Your task to perform on an android device: turn on bluetooth scan Image 0: 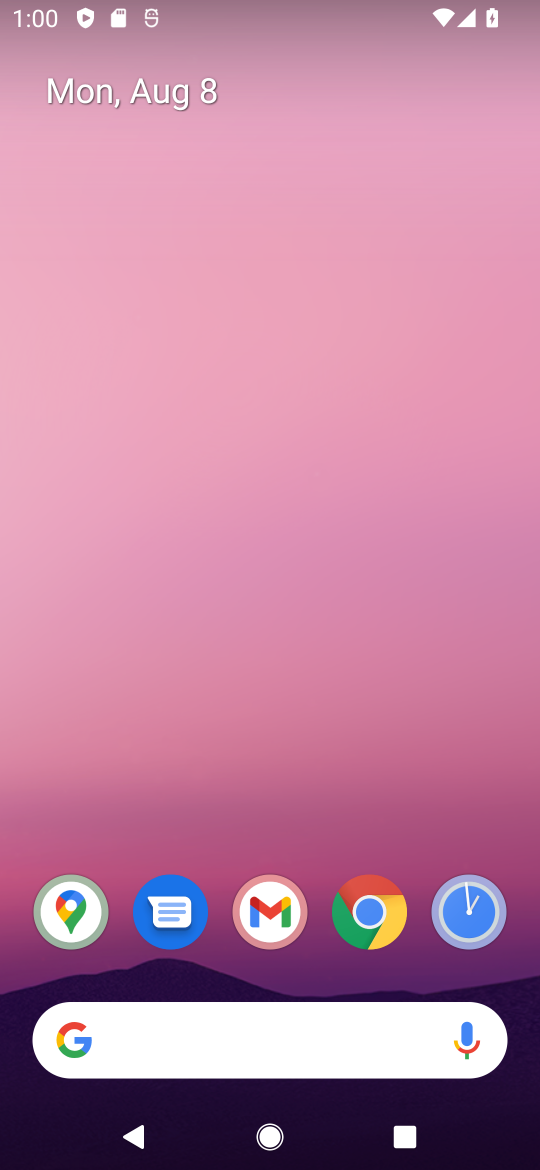
Step 0: drag from (198, 952) to (400, 0)
Your task to perform on an android device: turn on bluetooth scan Image 1: 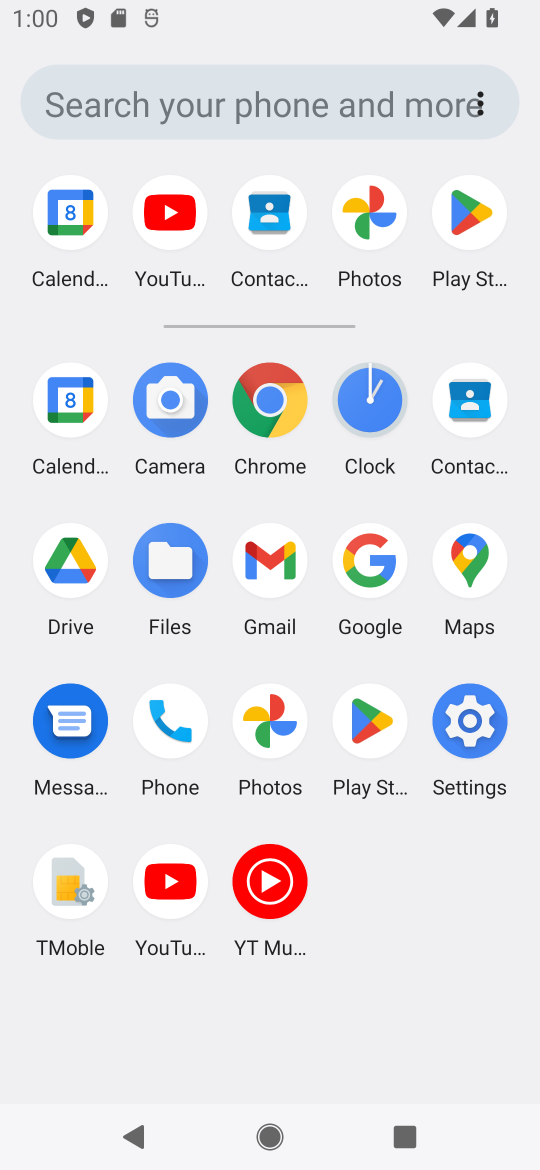
Step 1: click (476, 738)
Your task to perform on an android device: turn on bluetooth scan Image 2: 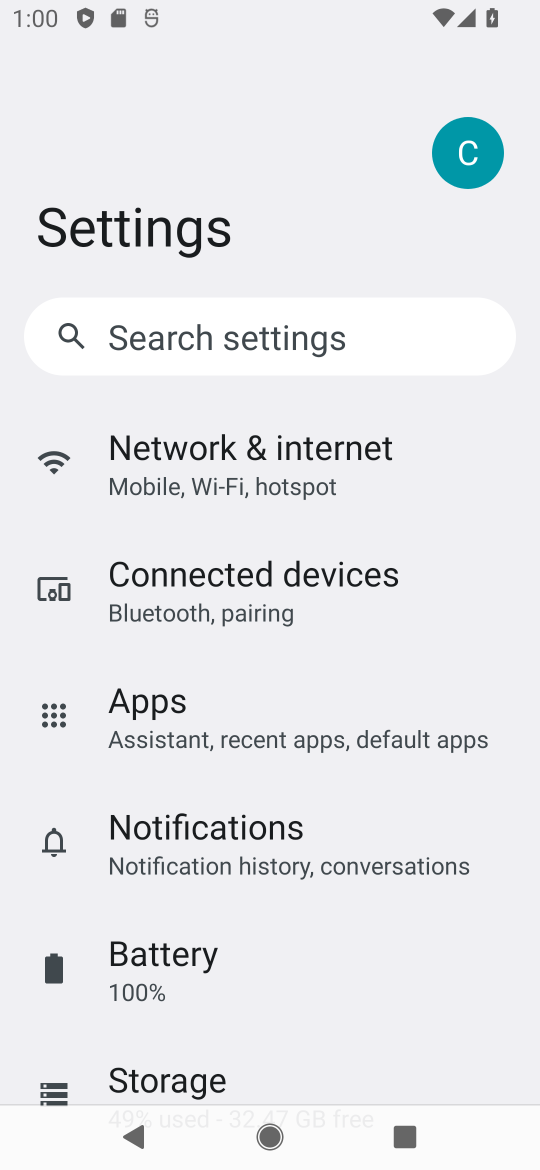
Step 2: click (193, 586)
Your task to perform on an android device: turn on bluetooth scan Image 3: 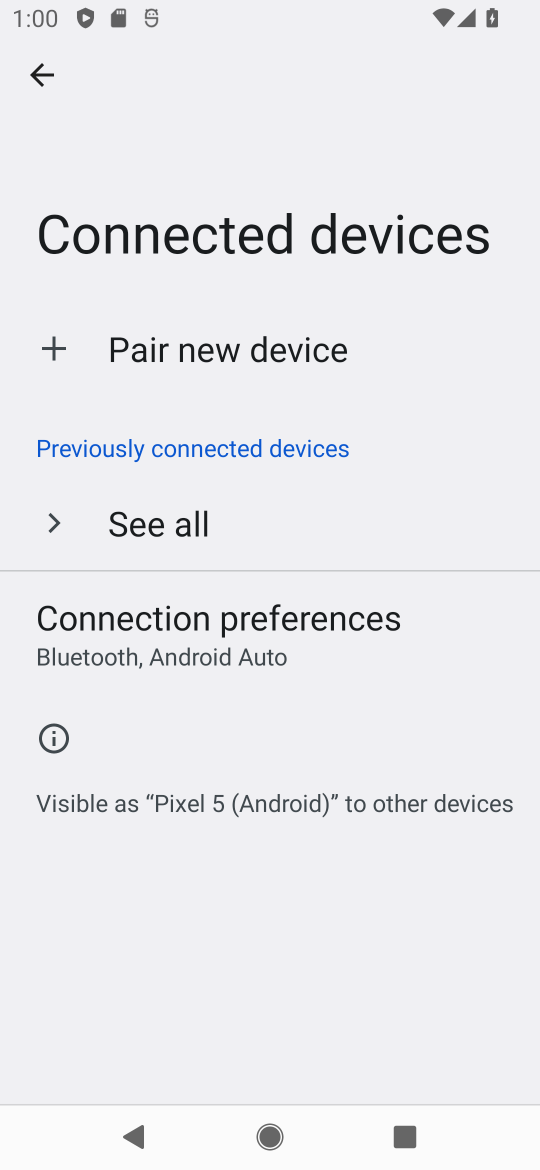
Step 3: click (189, 627)
Your task to perform on an android device: turn on bluetooth scan Image 4: 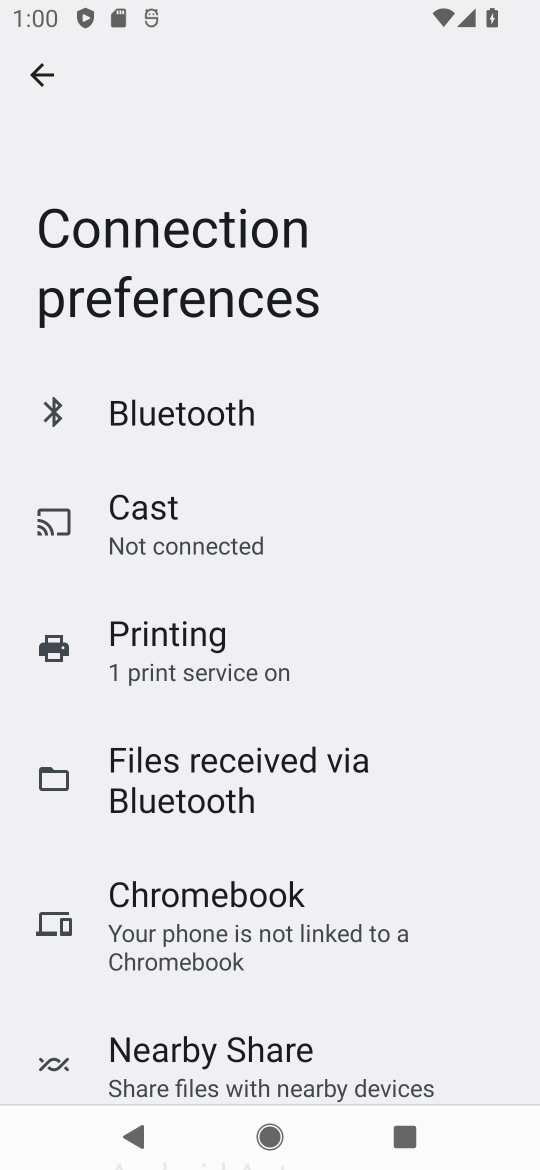
Step 4: click (201, 413)
Your task to perform on an android device: turn on bluetooth scan Image 5: 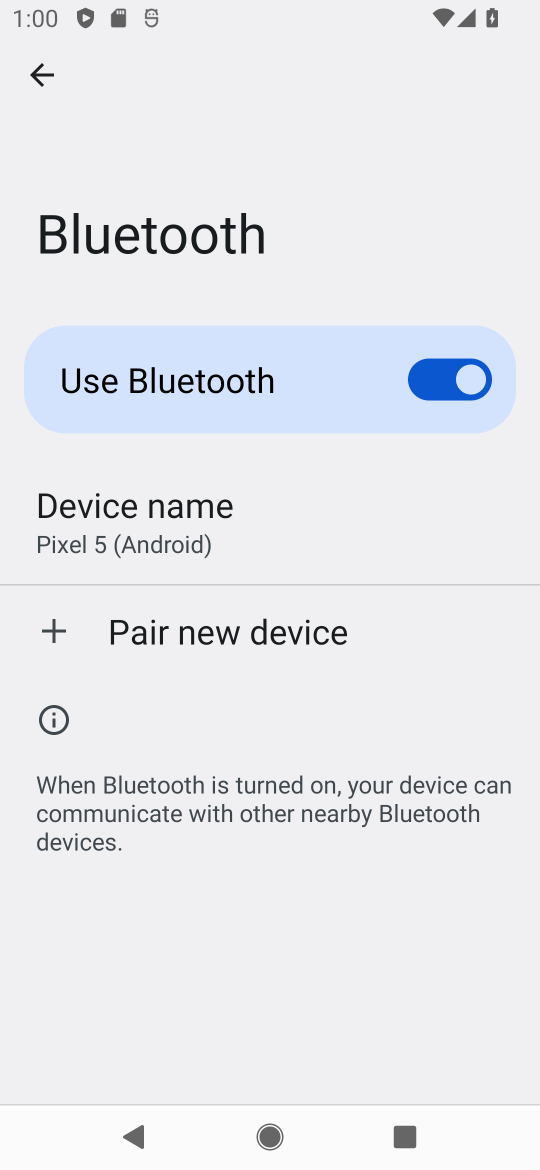
Step 5: task complete